Your task to perform on an android device: Go to Yahoo.com Image 0: 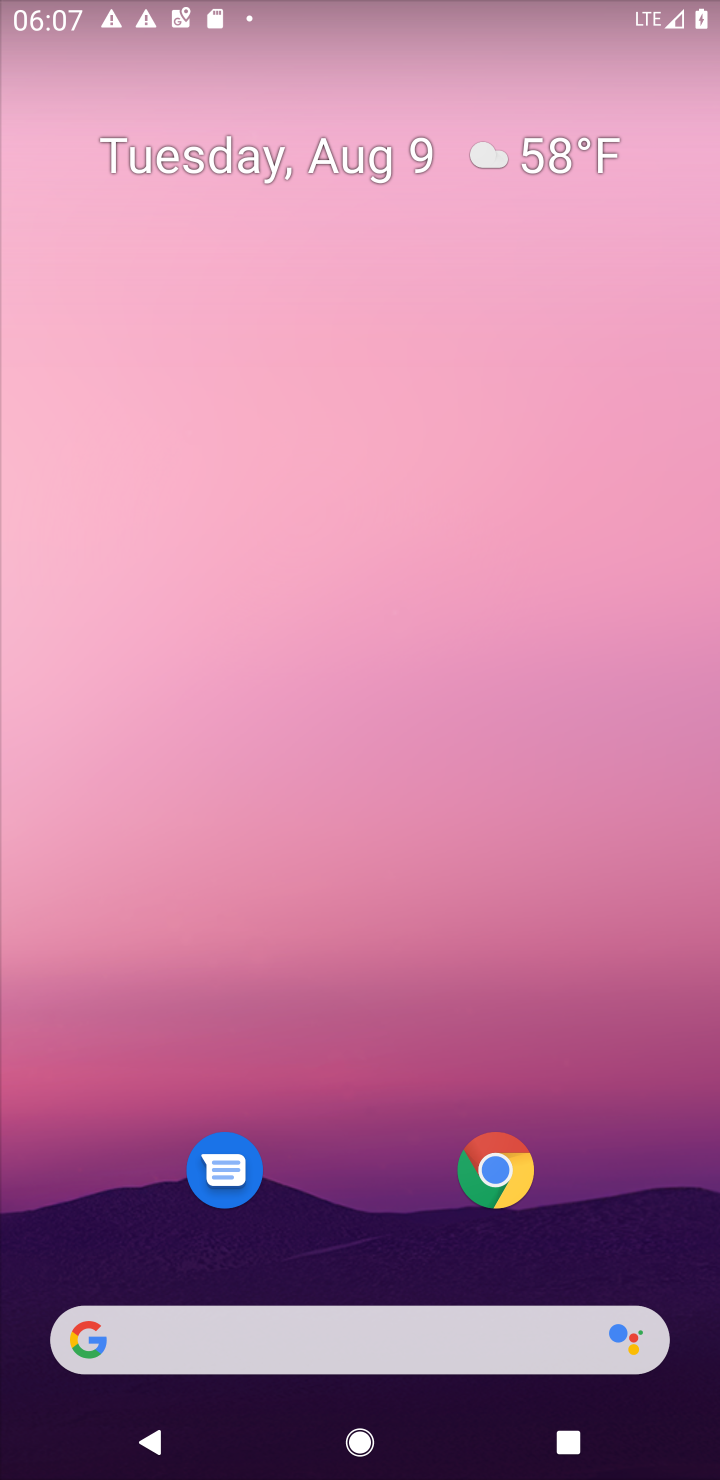
Step 0: press home button
Your task to perform on an android device: Go to Yahoo.com Image 1: 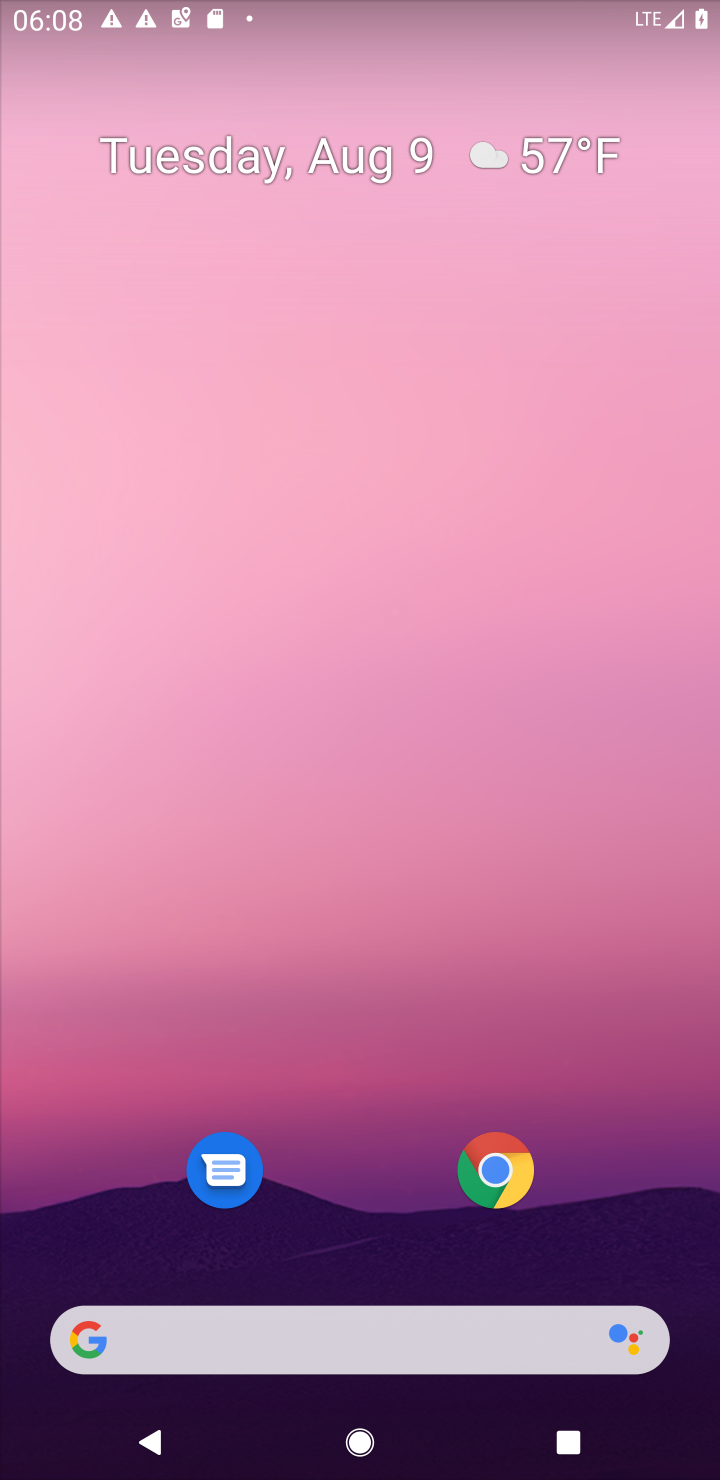
Step 1: click (91, 1332)
Your task to perform on an android device: Go to Yahoo.com Image 2: 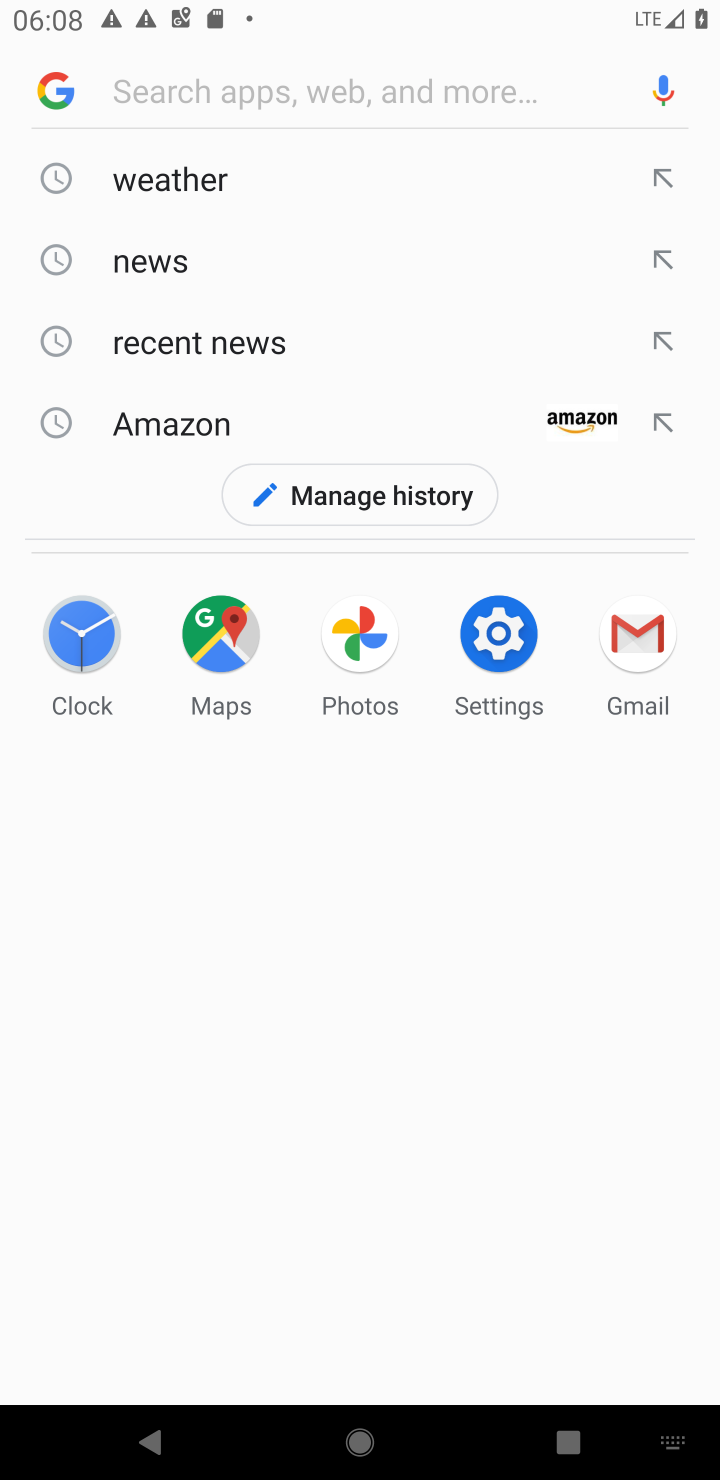
Step 2: type "Yahoo.com"
Your task to perform on an android device: Go to Yahoo.com Image 3: 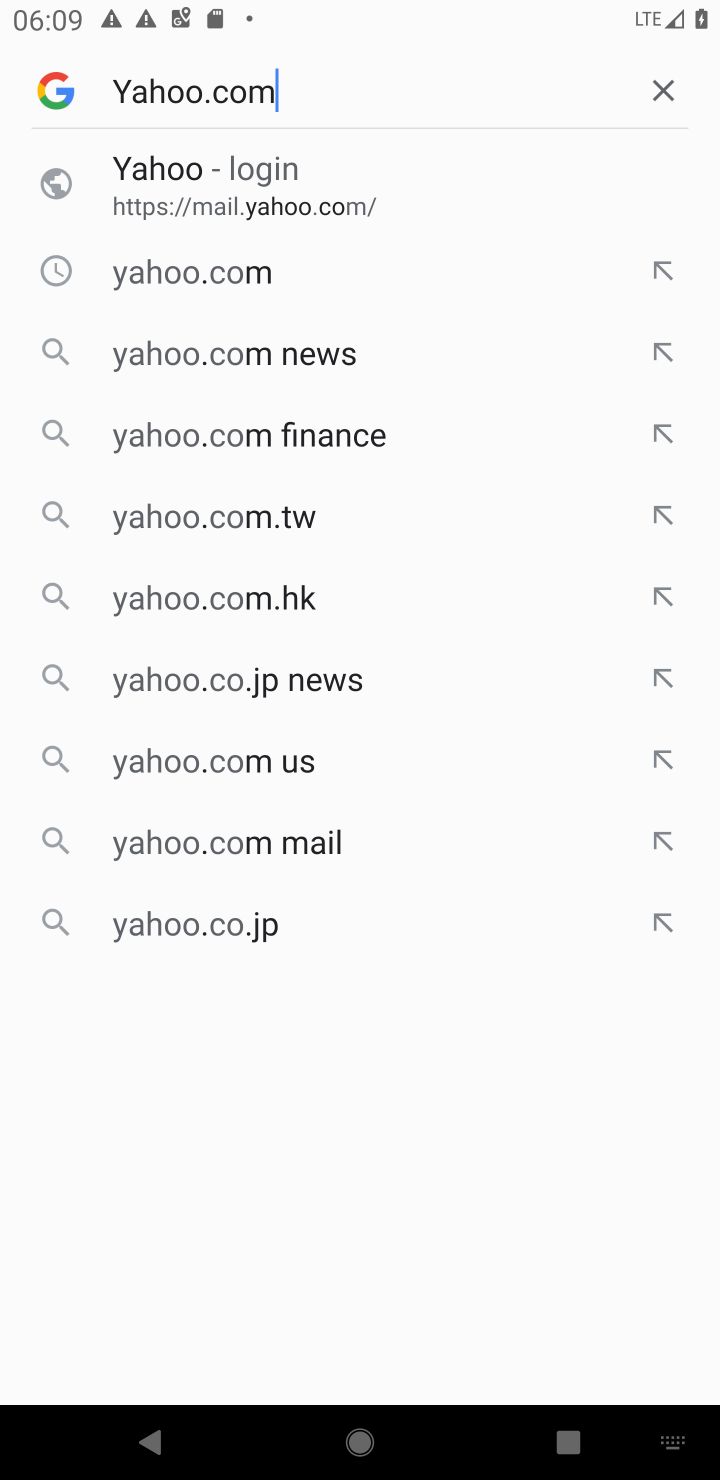
Step 3: press enter
Your task to perform on an android device: Go to Yahoo.com Image 4: 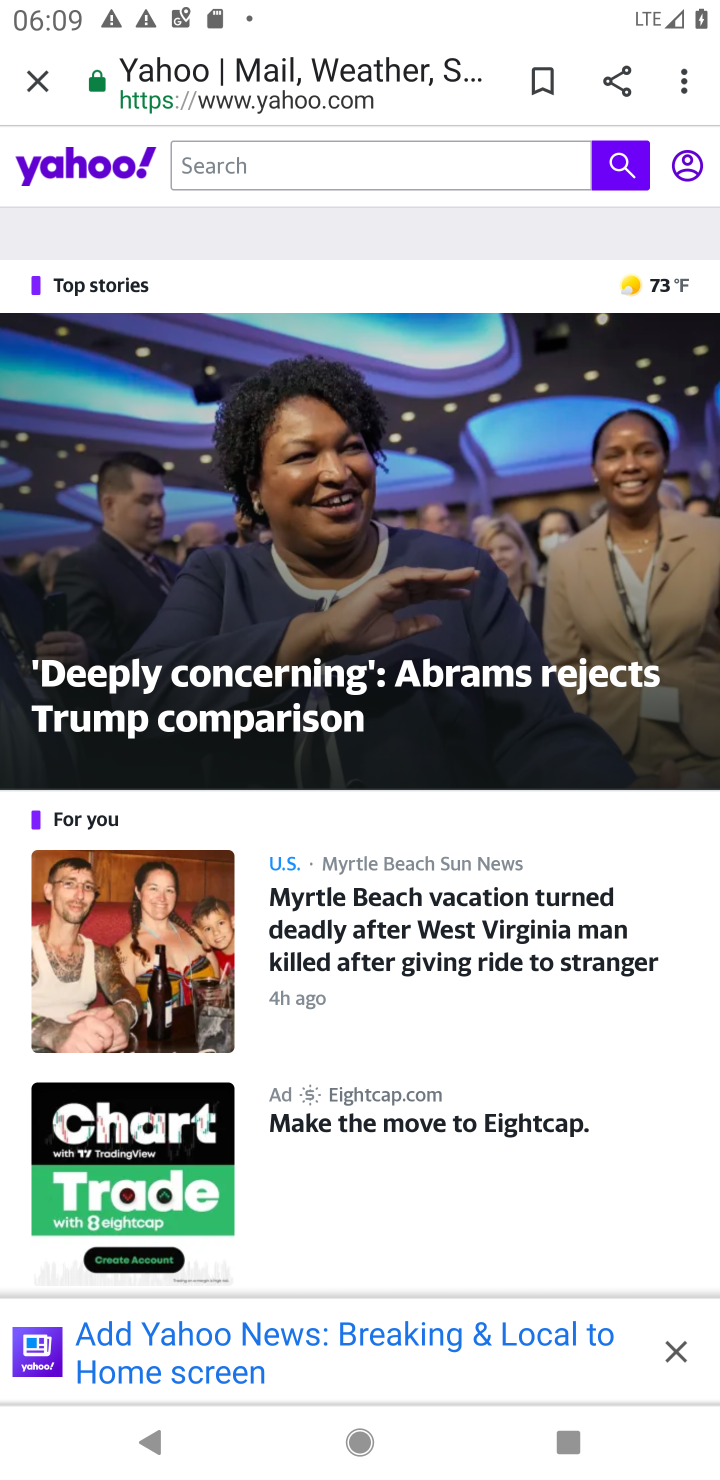
Step 4: task complete